Your task to perform on an android device: Search for seafood restaurants on Google Maps Image 0: 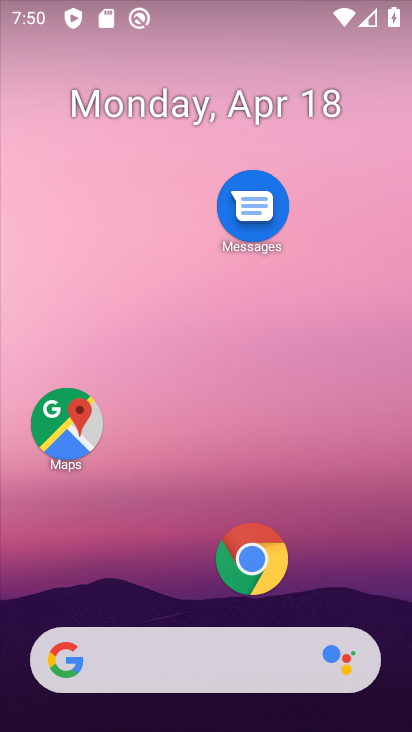
Step 0: click (63, 427)
Your task to perform on an android device: Search for seafood restaurants on Google Maps Image 1: 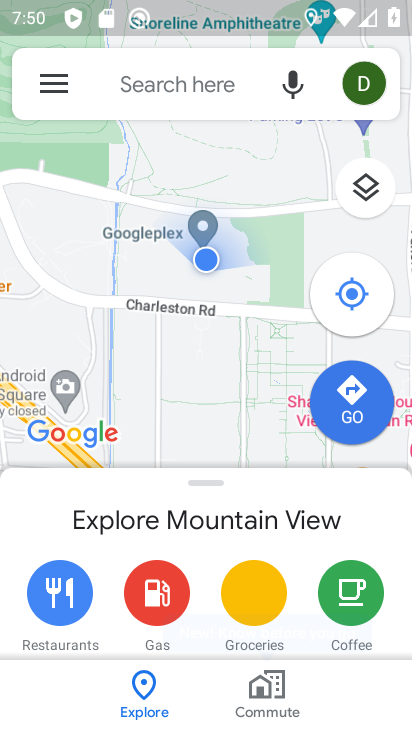
Step 1: click (177, 83)
Your task to perform on an android device: Search for seafood restaurants on Google Maps Image 2: 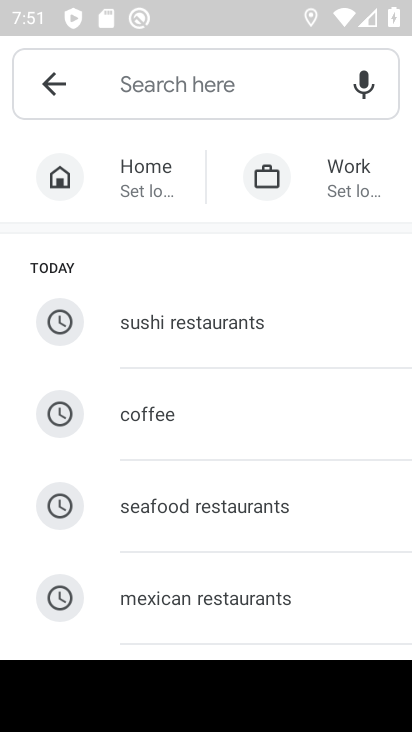
Step 2: type "seafood restaurants"
Your task to perform on an android device: Search for seafood restaurants on Google Maps Image 3: 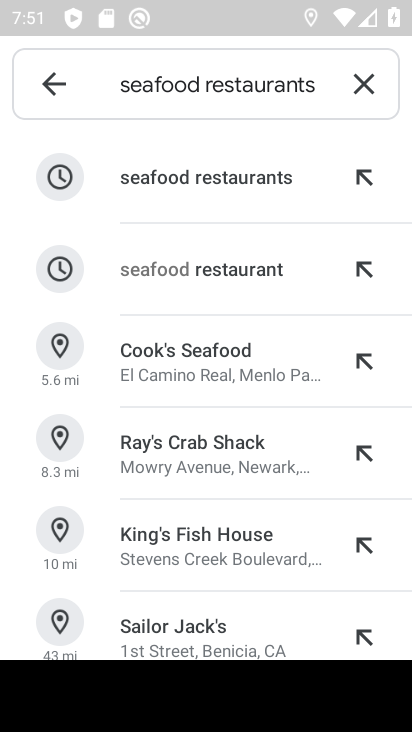
Step 3: click (208, 174)
Your task to perform on an android device: Search for seafood restaurants on Google Maps Image 4: 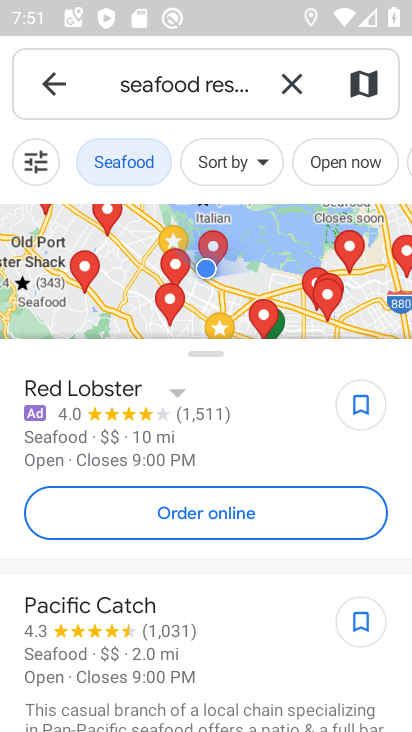
Step 4: task complete